Your task to perform on an android device: delete a single message in the gmail app Image 0: 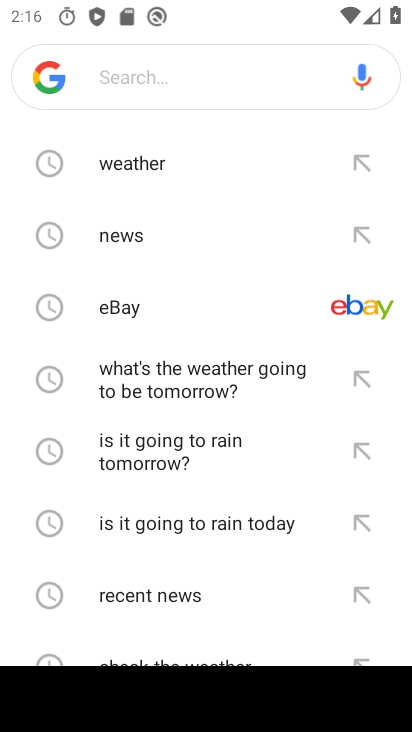
Step 0: press home button
Your task to perform on an android device: delete a single message in the gmail app Image 1: 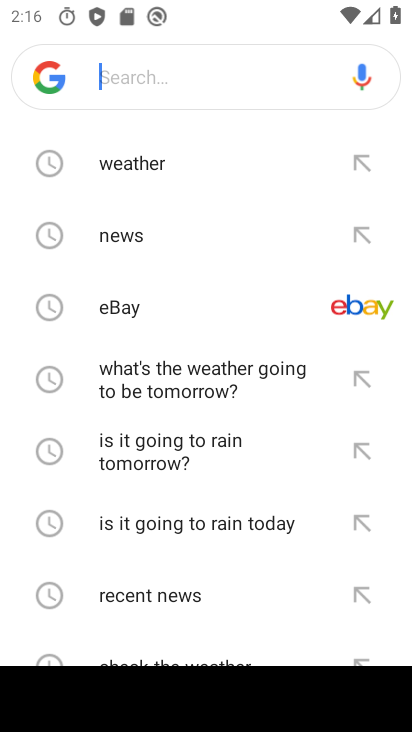
Step 1: press home button
Your task to perform on an android device: delete a single message in the gmail app Image 2: 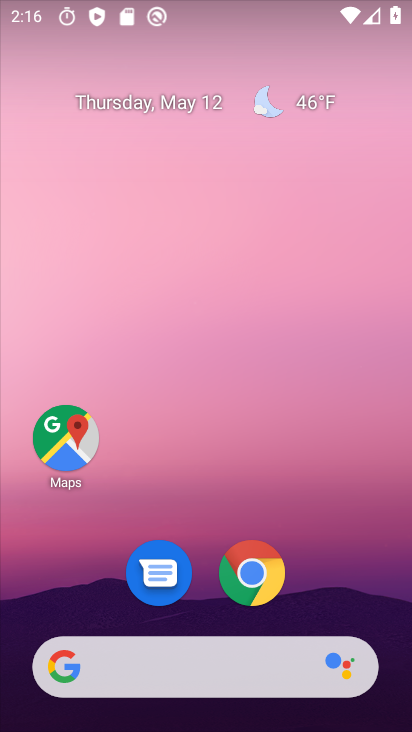
Step 2: drag from (214, 613) to (236, 41)
Your task to perform on an android device: delete a single message in the gmail app Image 3: 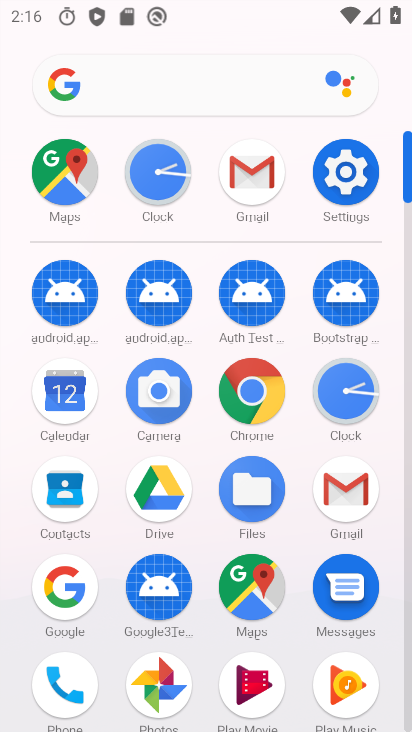
Step 3: click (274, 176)
Your task to perform on an android device: delete a single message in the gmail app Image 4: 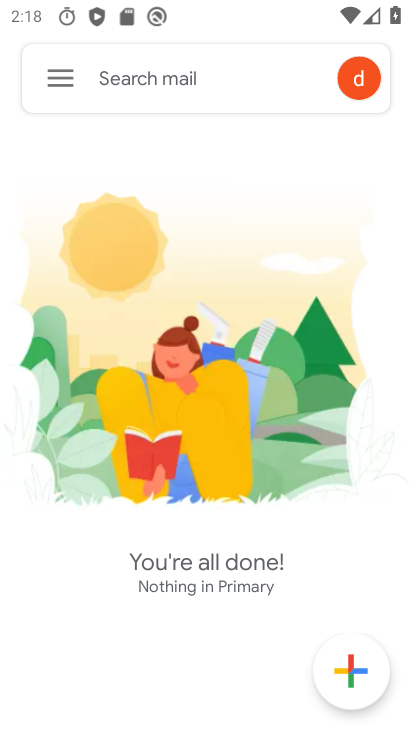
Step 4: task complete